Your task to perform on an android device: open a bookmark in the chrome app Image 0: 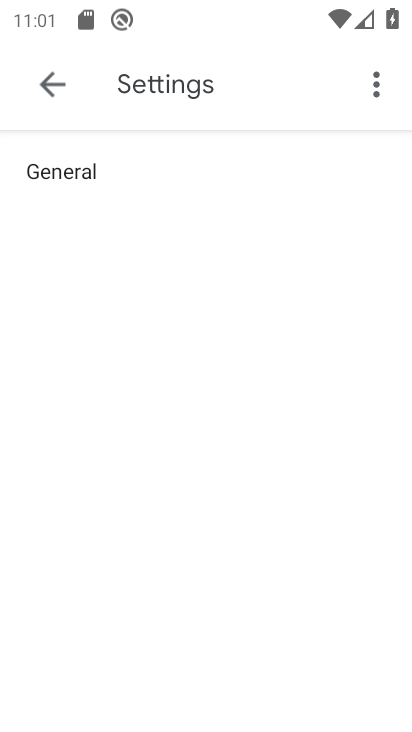
Step 0: press home button
Your task to perform on an android device: open a bookmark in the chrome app Image 1: 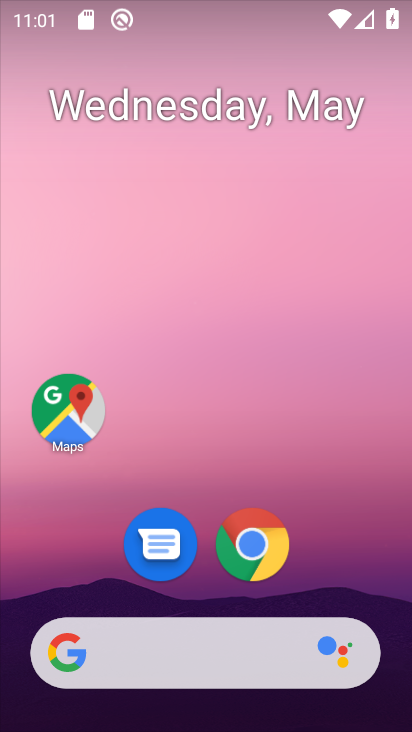
Step 1: click (276, 562)
Your task to perform on an android device: open a bookmark in the chrome app Image 2: 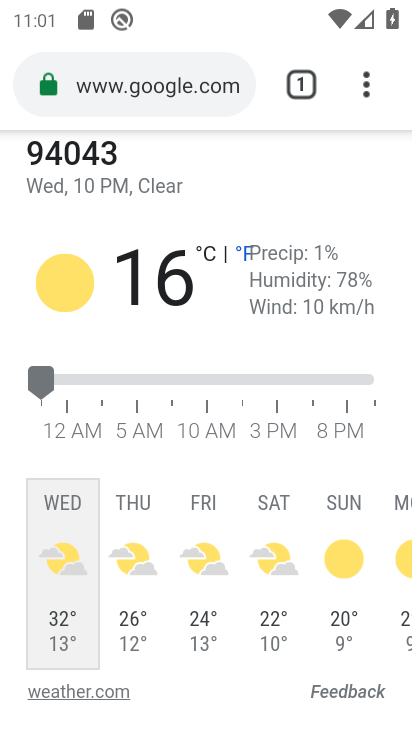
Step 2: click (370, 83)
Your task to perform on an android device: open a bookmark in the chrome app Image 3: 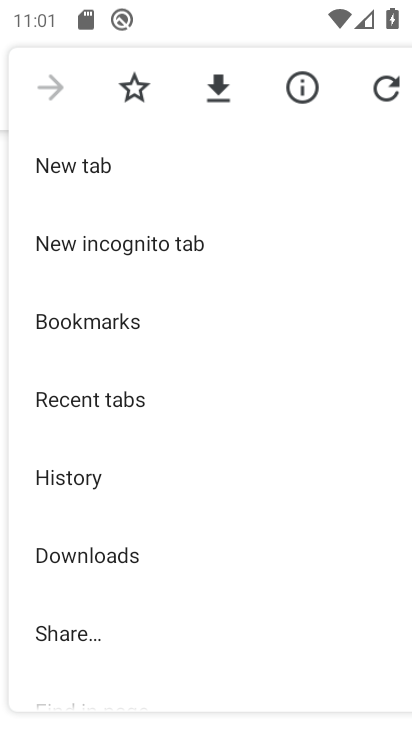
Step 3: click (124, 320)
Your task to perform on an android device: open a bookmark in the chrome app Image 4: 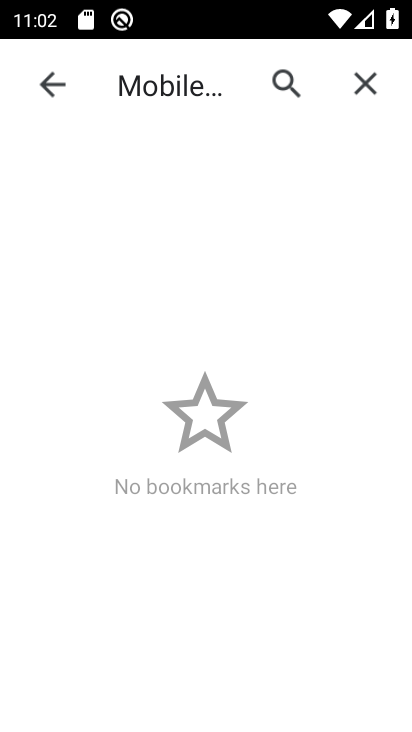
Step 4: task complete